Your task to perform on an android device: open a new tab in the chrome app Image 0: 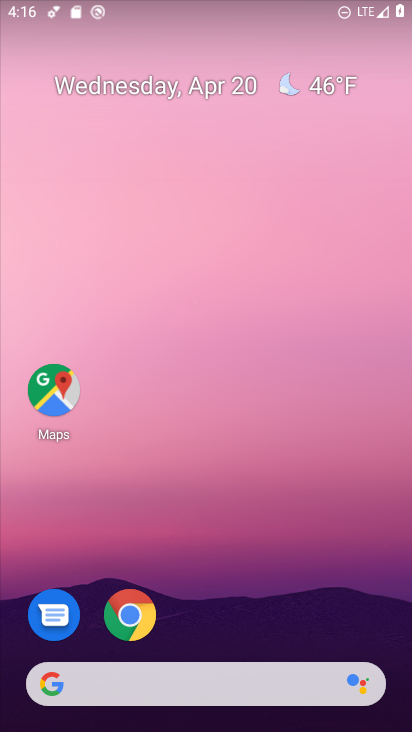
Step 0: click (118, 611)
Your task to perform on an android device: open a new tab in the chrome app Image 1: 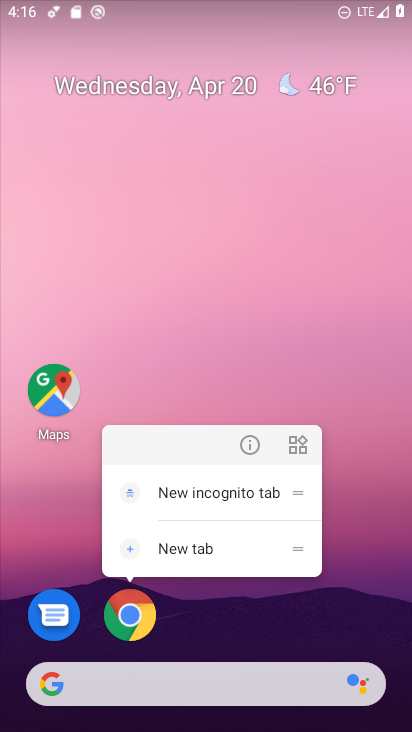
Step 1: click (124, 611)
Your task to perform on an android device: open a new tab in the chrome app Image 2: 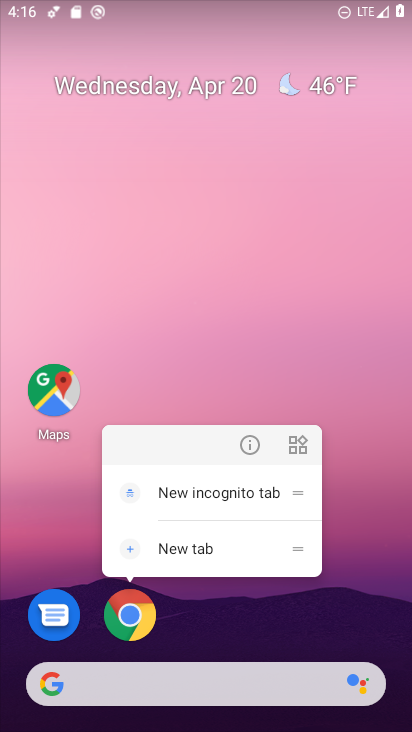
Step 2: click (133, 607)
Your task to perform on an android device: open a new tab in the chrome app Image 3: 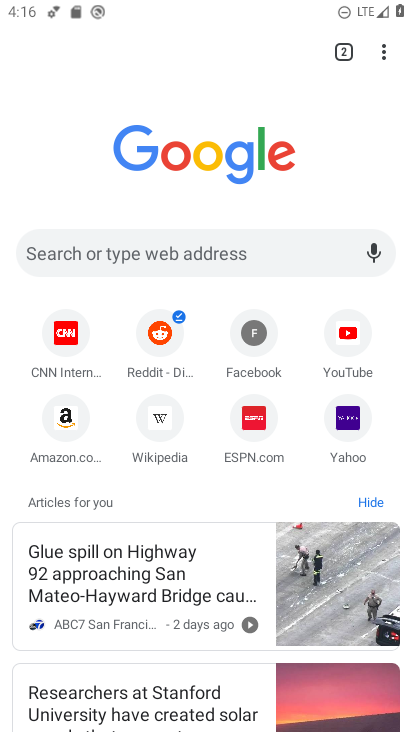
Step 3: click (386, 47)
Your task to perform on an android device: open a new tab in the chrome app Image 4: 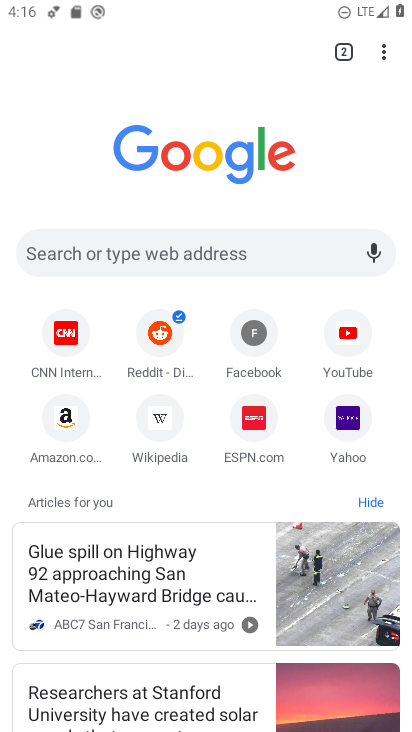
Step 4: click (380, 51)
Your task to perform on an android device: open a new tab in the chrome app Image 5: 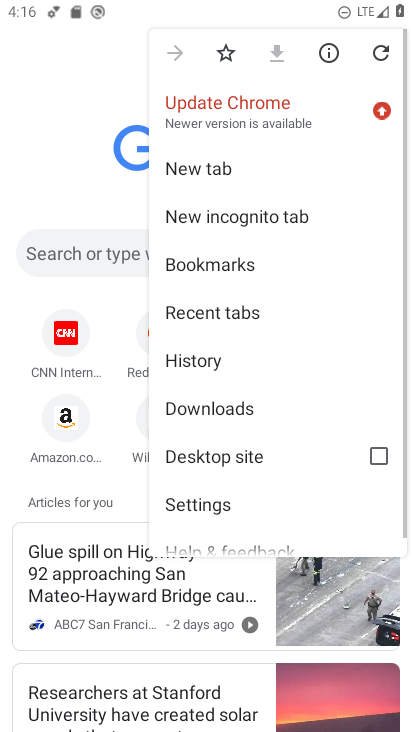
Step 5: click (225, 168)
Your task to perform on an android device: open a new tab in the chrome app Image 6: 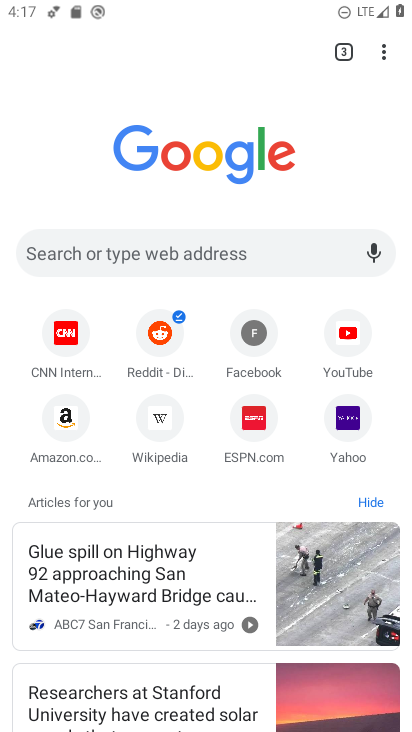
Step 6: task complete